Your task to perform on an android device: Search for pizza restaurants on Maps Image 0: 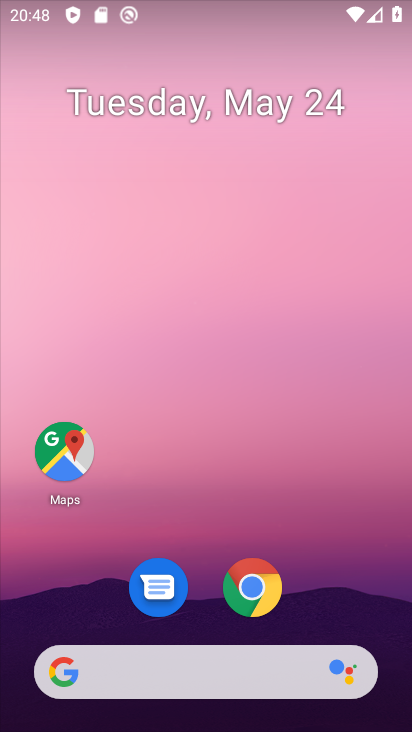
Step 0: drag from (338, 575) to (222, 16)
Your task to perform on an android device: Search for pizza restaurants on Maps Image 1: 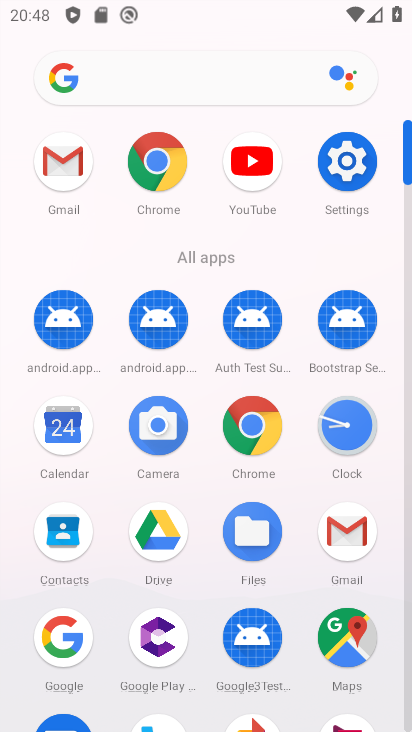
Step 1: drag from (8, 587) to (18, 243)
Your task to perform on an android device: Search for pizza restaurants on Maps Image 2: 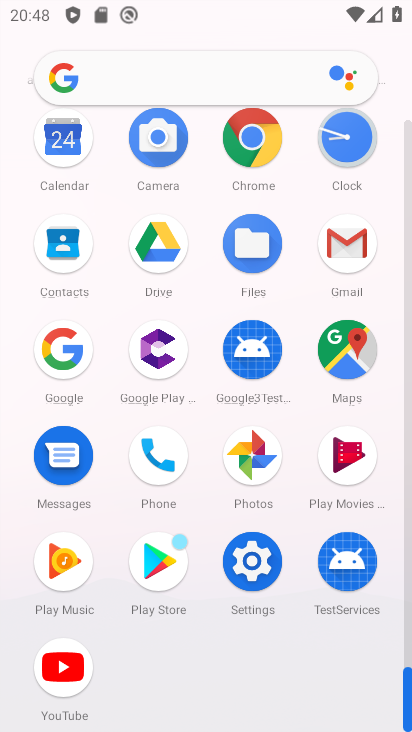
Step 2: click (343, 344)
Your task to perform on an android device: Search for pizza restaurants on Maps Image 3: 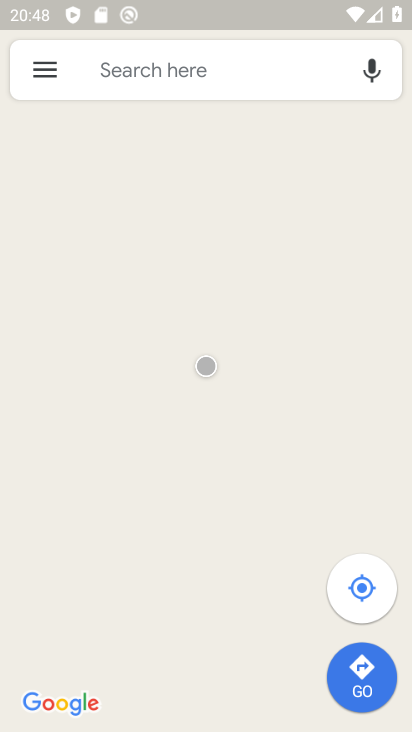
Step 3: click (244, 84)
Your task to perform on an android device: Search for pizza restaurants on Maps Image 4: 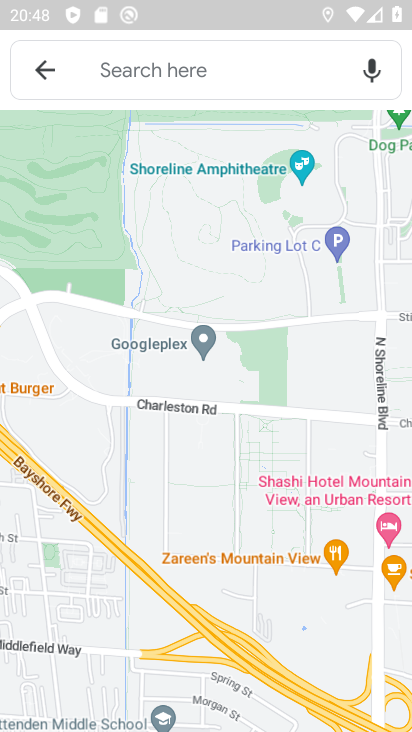
Step 4: click (235, 71)
Your task to perform on an android device: Search for pizza restaurants on Maps Image 5: 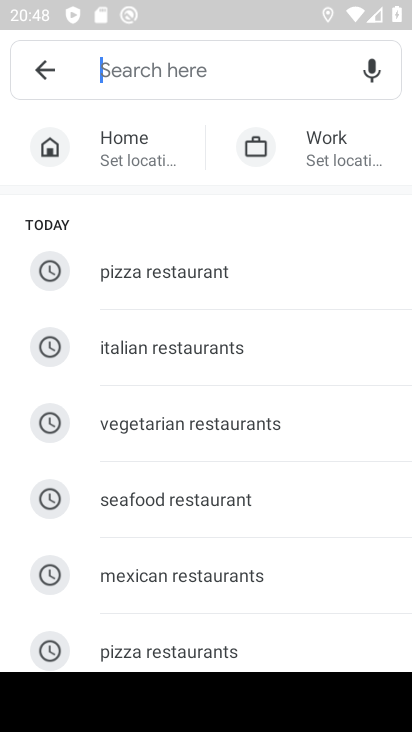
Step 5: click (199, 271)
Your task to perform on an android device: Search for pizza restaurants on Maps Image 6: 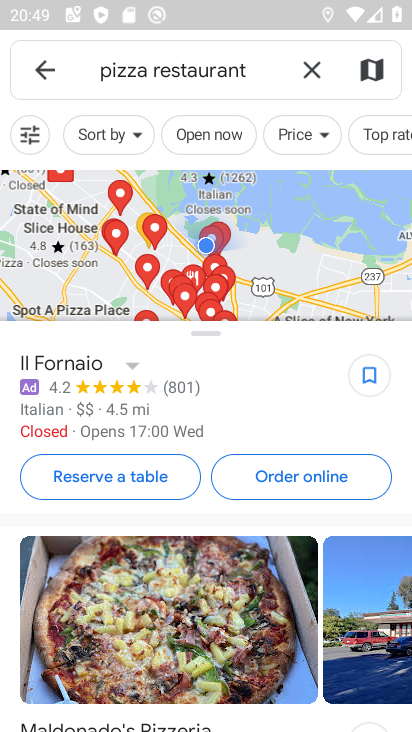
Step 6: task complete